Your task to perform on an android device: Open CNN.com Image 0: 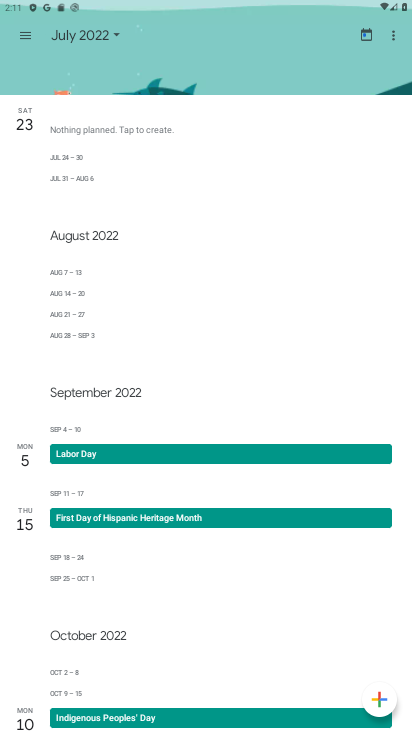
Step 0: press home button
Your task to perform on an android device: Open CNN.com Image 1: 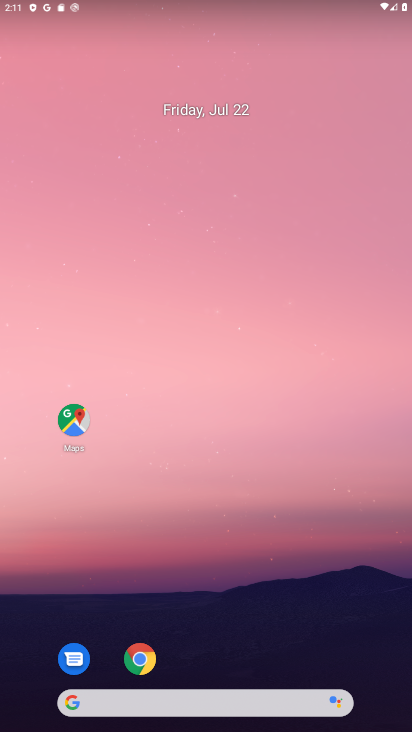
Step 1: click (135, 664)
Your task to perform on an android device: Open CNN.com Image 2: 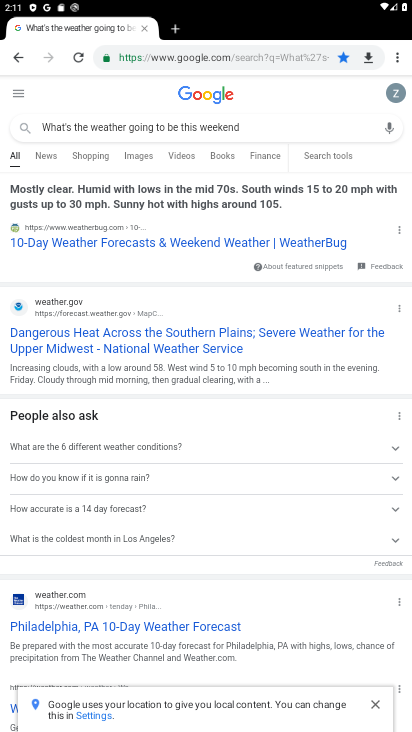
Step 2: click (205, 49)
Your task to perform on an android device: Open CNN.com Image 3: 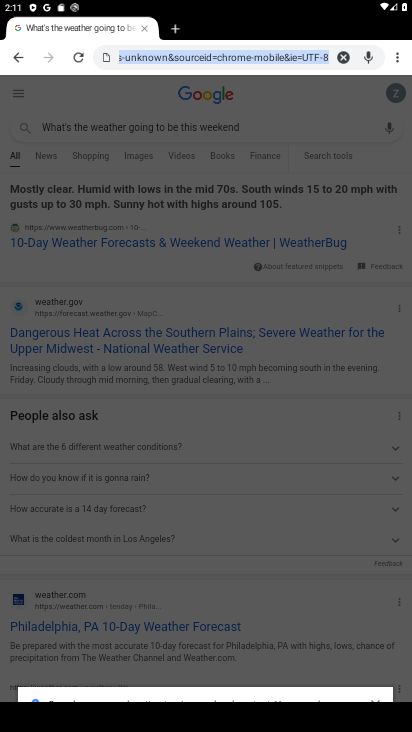
Step 3: type "www.cnn.com"
Your task to perform on an android device: Open CNN.com Image 4: 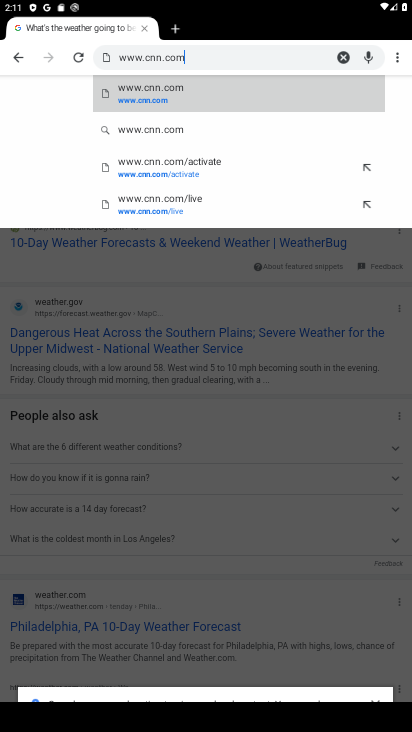
Step 4: click (135, 97)
Your task to perform on an android device: Open CNN.com Image 5: 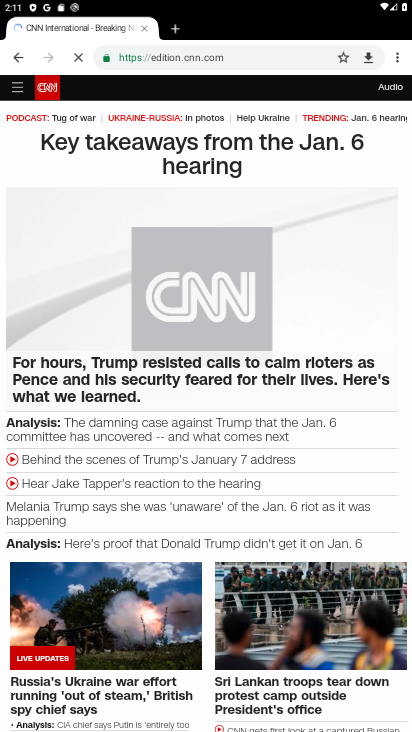
Step 5: task complete